Your task to perform on an android device: Open Google Chrome and open the bookmarks view Image 0: 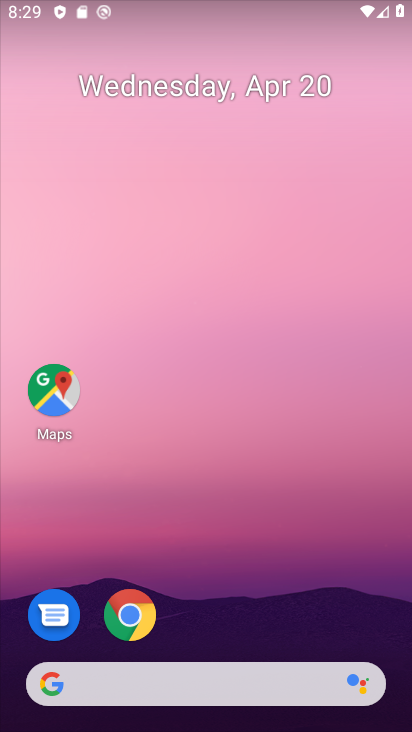
Step 0: click (119, 613)
Your task to perform on an android device: Open Google Chrome and open the bookmarks view Image 1: 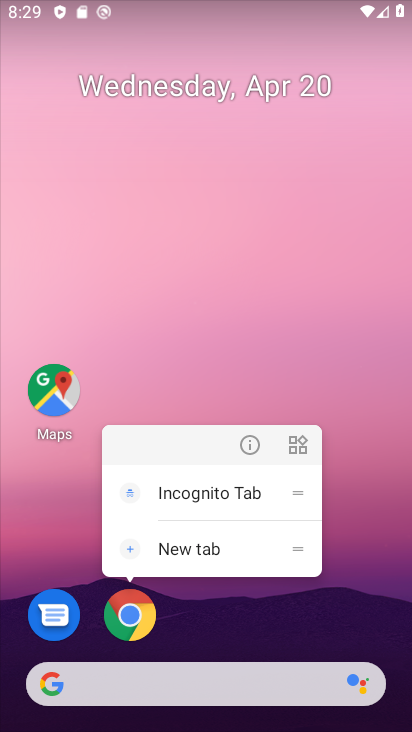
Step 1: click (249, 449)
Your task to perform on an android device: Open Google Chrome and open the bookmarks view Image 2: 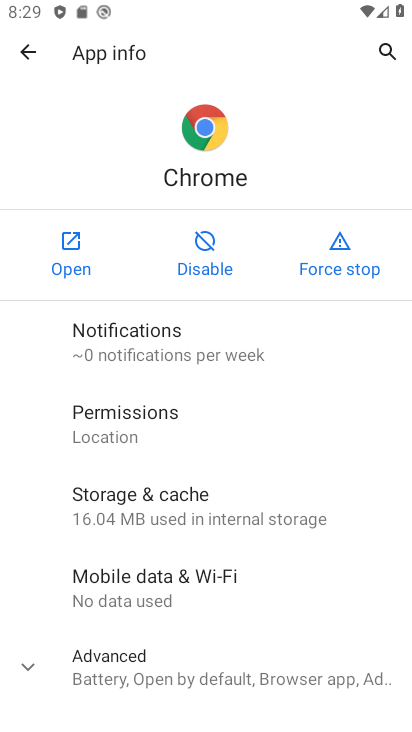
Step 2: click (72, 240)
Your task to perform on an android device: Open Google Chrome and open the bookmarks view Image 3: 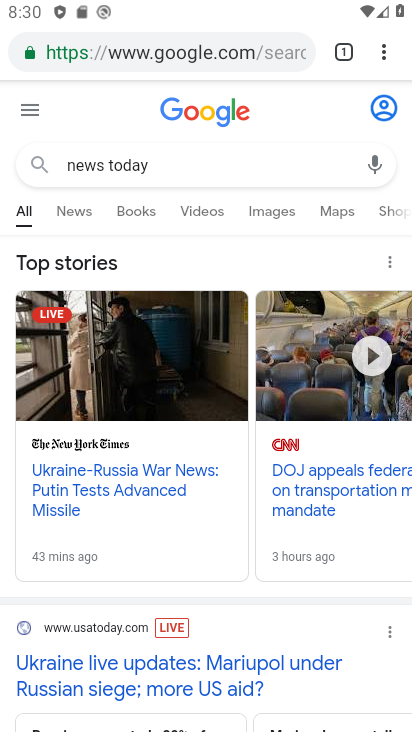
Step 3: click (348, 56)
Your task to perform on an android device: Open Google Chrome and open the bookmarks view Image 4: 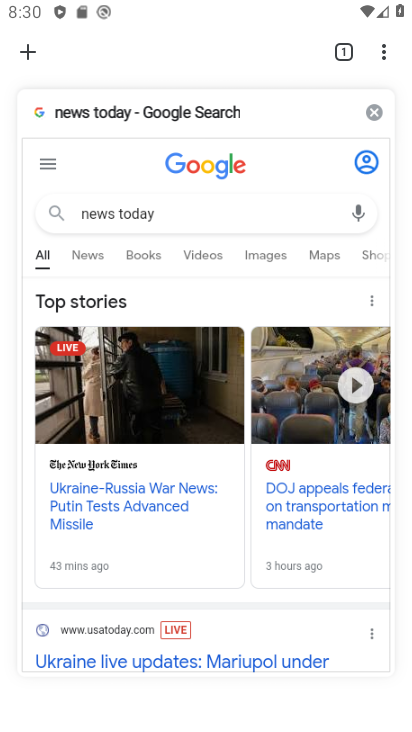
Step 4: click (24, 49)
Your task to perform on an android device: Open Google Chrome and open the bookmarks view Image 5: 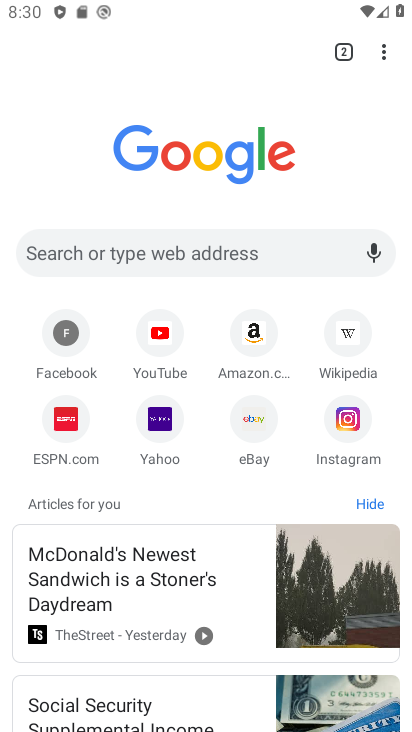
Step 5: click (387, 56)
Your task to perform on an android device: Open Google Chrome and open the bookmarks view Image 6: 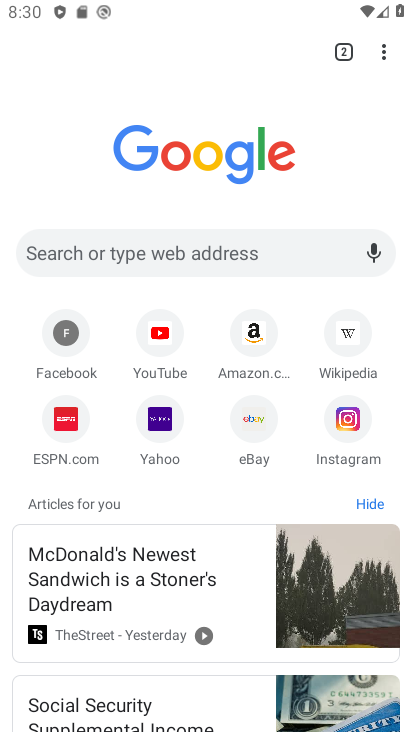
Step 6: click (386, 46)
Your task to perform on an android device: Open Google Chrome and open the bookmarks view Image 7: 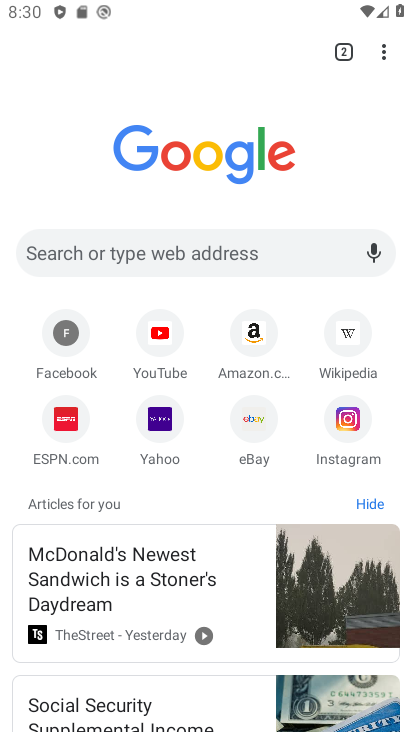
Step 7: click (386, 46)
Your task to perform on an android device: Open Google Chrome and open the bookmarks view Image 8: 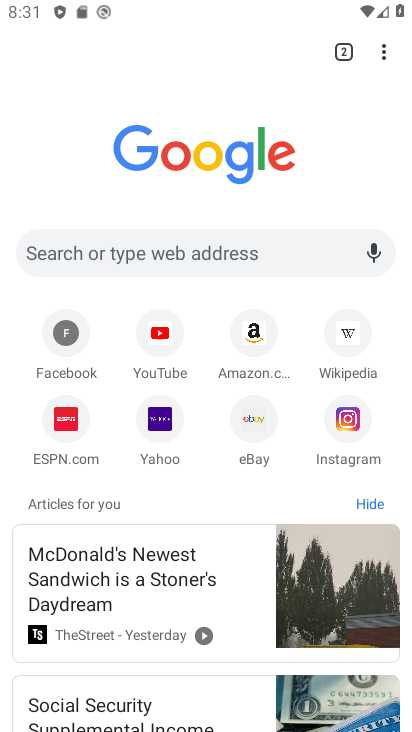
Step 8: click (383, 47)
Your task to perform on an android device: Open Google Chrome and open the bookmarks view Image 9: 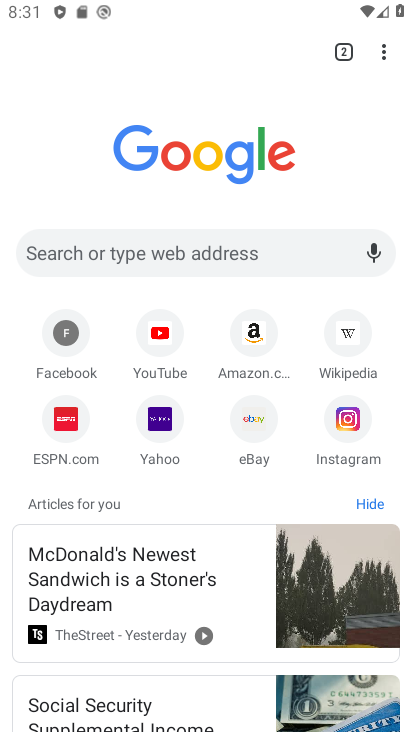
Step 9: click (383, 47)
Your task to perform on an android device: Open Google Chrome and open the bookmarks view Image 10: 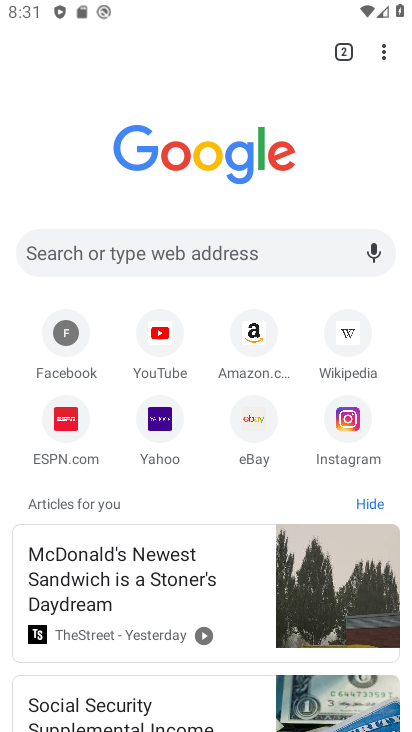
Step 10: click (382, 46)
Your task to perform on an android device: Open Google Chrome and open the bookmarks view Image 11: 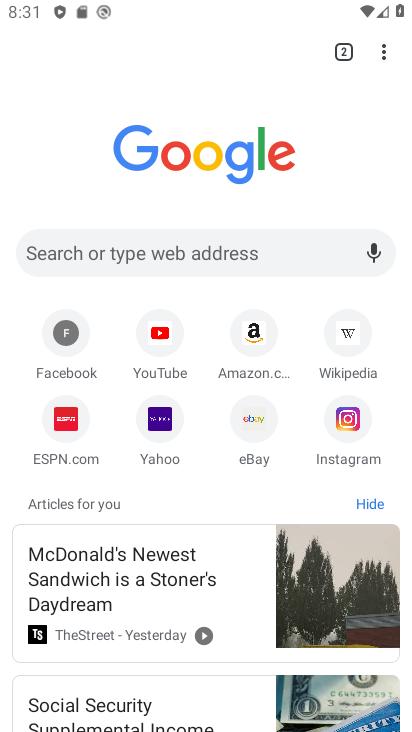
Step 11: click (387, 48)
Your task to perform on an android device: Open Google Chrome and open the bookmarks view Image 12: 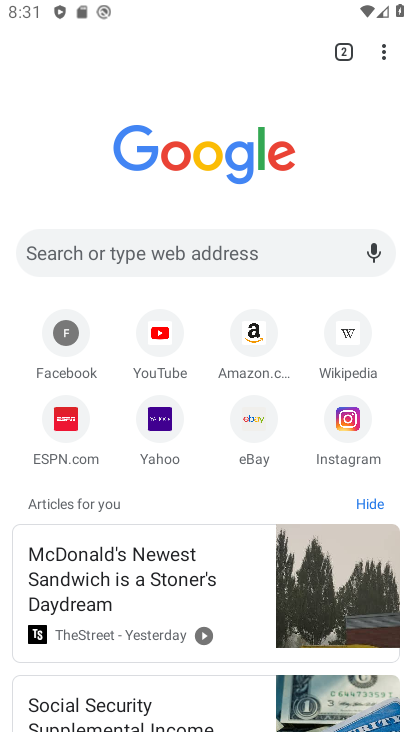
Step 12: click (383, 51)
Your task to perform on an android device: Open Google Chrome and open the bookmarks view Image 13: 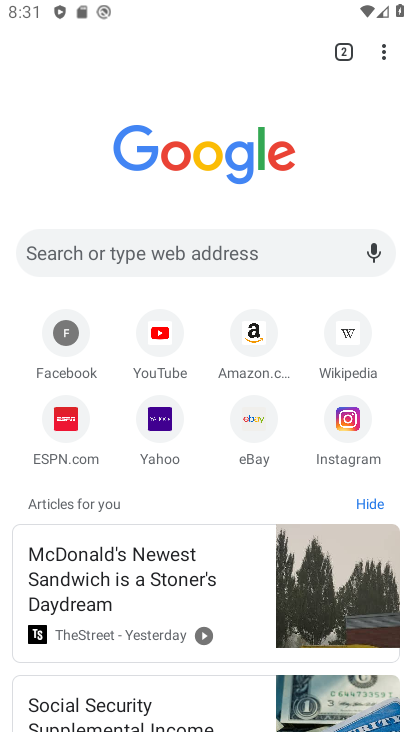
Step 13: drag from (408, 101) to (392, 48)
Your task to perform on an android device: Open Google Chrome and open the bookmarks view Image 14: 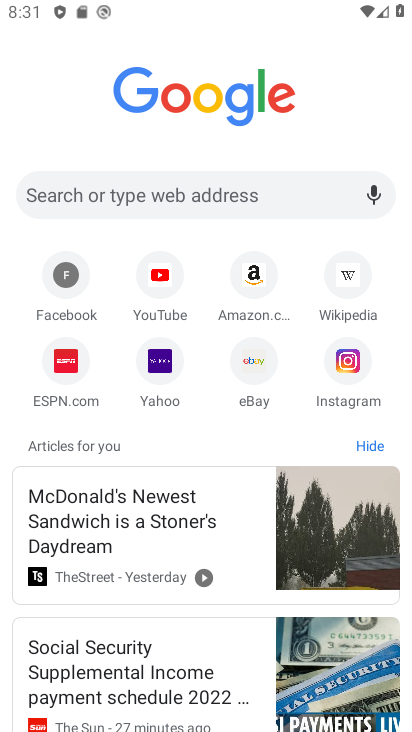
Step 14: drag from (275, 106) to (409, 41)
Your task to perform on an android device: Open Google Chrome and open the bookmarks view Image 15: 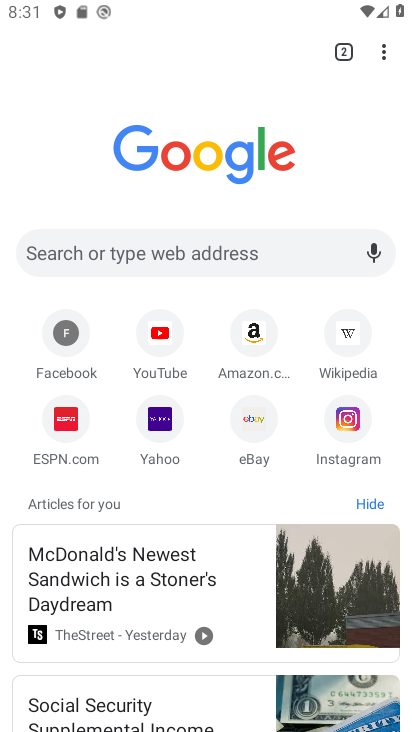
Step 15: click (382, 49)
Your task to perform on an android device: Open Google Chrome and open the bookmarks view Image 16: 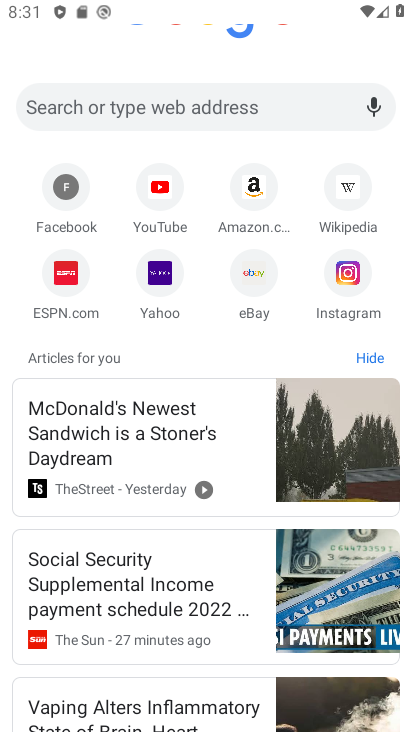
Step 16: drag from (410, 85) to (407, 385)
Your task to perform on an android device: Open Google Chrome and open the bookmarks view Image 17: 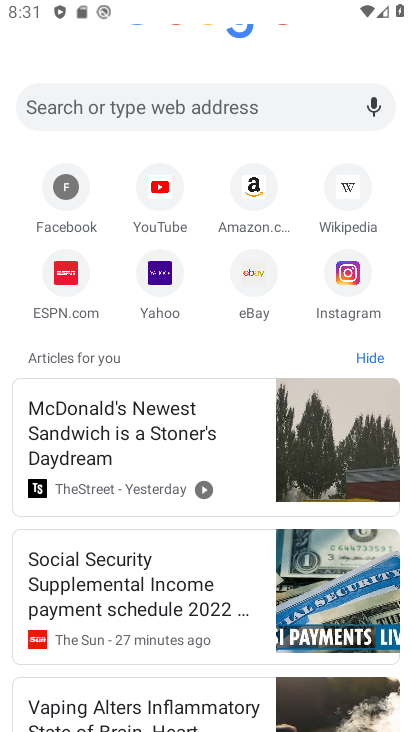
Step 17: drag from (11, 195) to (0, 453)
Your task to perform on an android device: Open Google Chrome and open the bookmarks view Image 18: 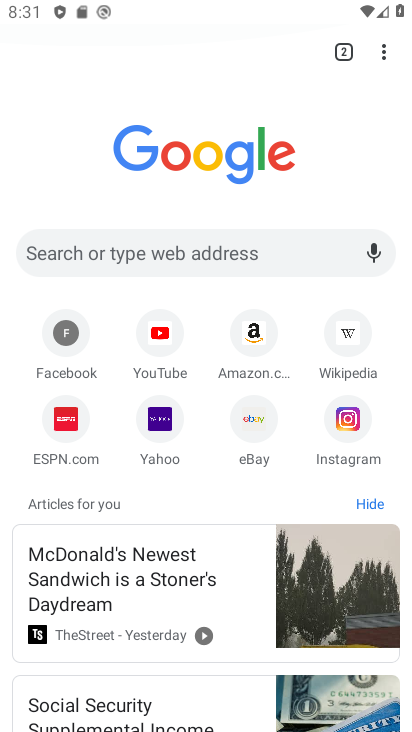
Step 18: drag from (352, 45) to (352, 370)
Your task to perform on an android device: Open Google Chrome and open the bookmarks view Image 19: 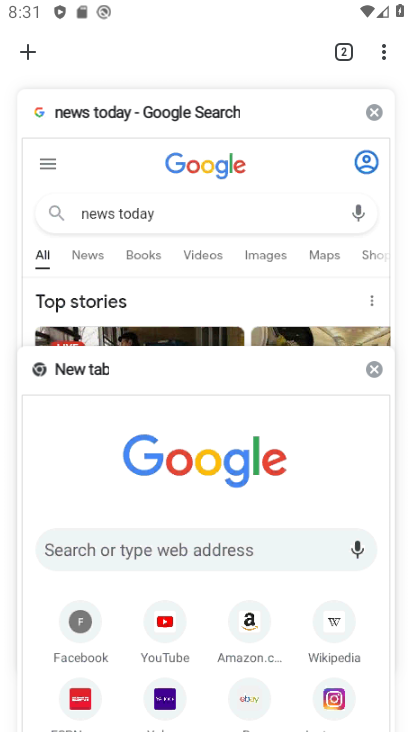
Step 19: click (387, 46)
Your task to perform on an android device: Open Google Chrome and open the bookmarks view Image 20: 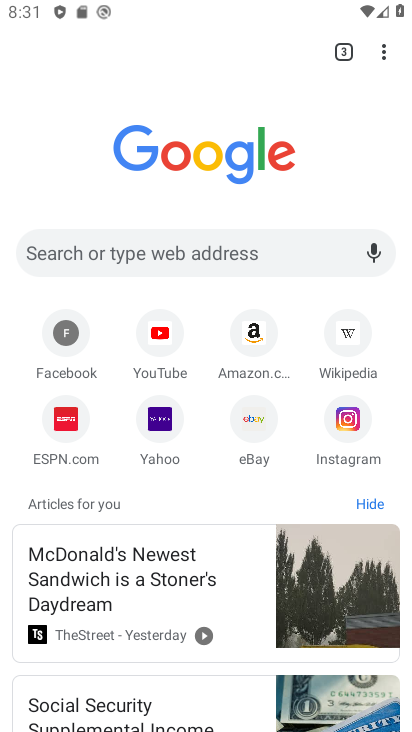
Step 20: click (383, 55)
Your task to perform on an android device: Open Google Chrome and open the bookmarks view Image 21: 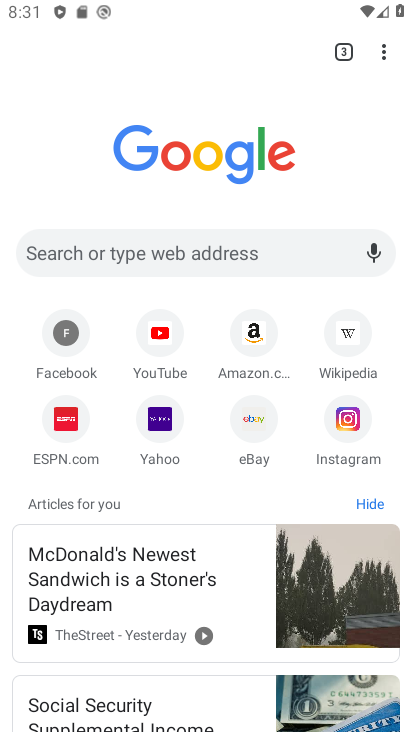
Step 21: click (341, 52)
Your task to perform on an android device: Open Google Chrome and open the bookmarks view Image 22: 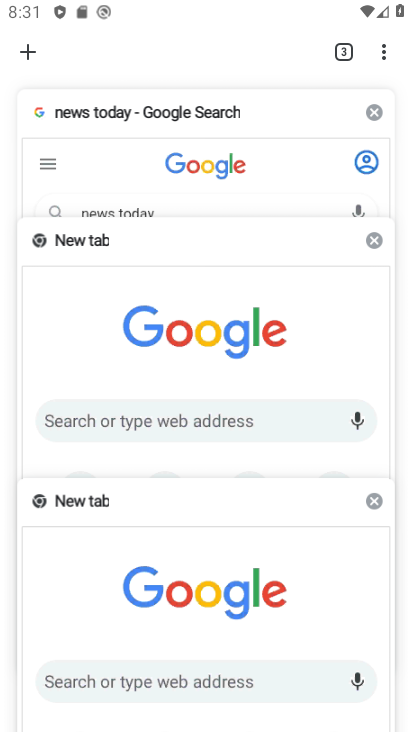
Step 22: click (372, 241)
Your task to perform on an android device: Open Google Chrome and open the bookmarks view Image 23: 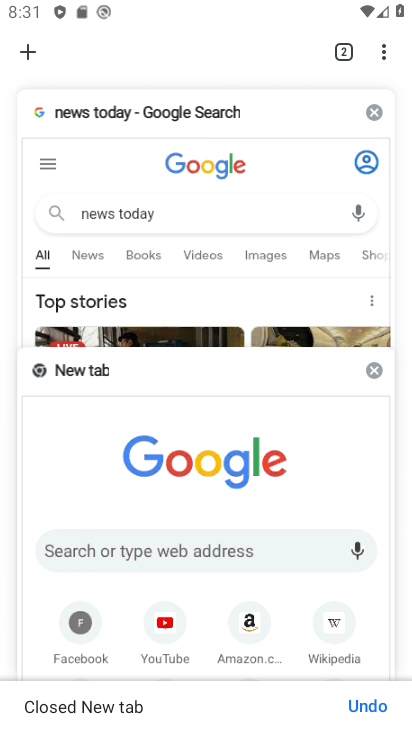
Step 23: click (386, 55)
Your task to perform on an android device: Open Google Chrome and open the bookmarks view Image 24: 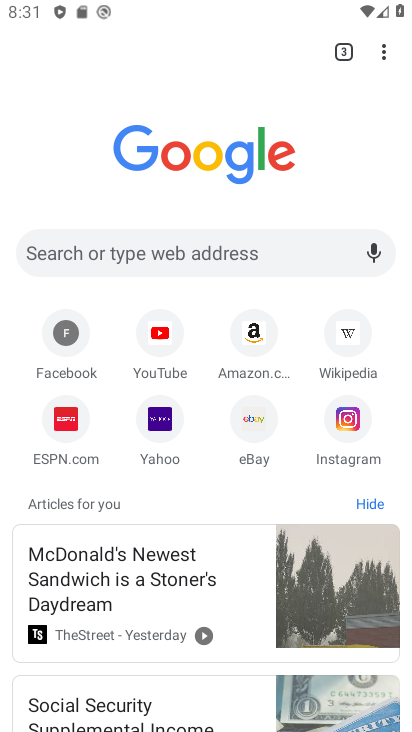
Step 24: click (386, 55)
Your task to perform on an android device: Open Google Chrome and open the bookmarks view Image 25: 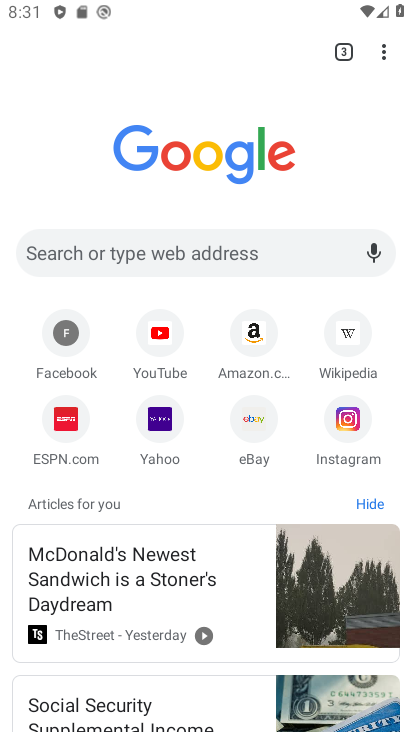
Step 25: click (386, 55)
Your task to perform on an android device: Open Google Chrome and open the bookmarks view Image 26: 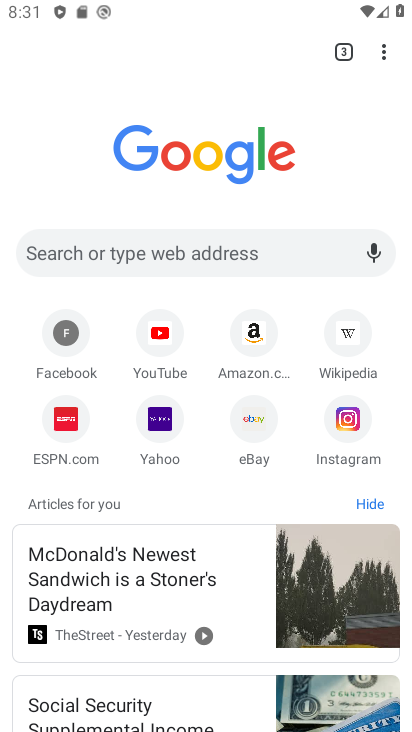
Step 26: click (386, 55)
Your task to perform on an android device: Open Google Chrome and open the bookmarks view Image 27: 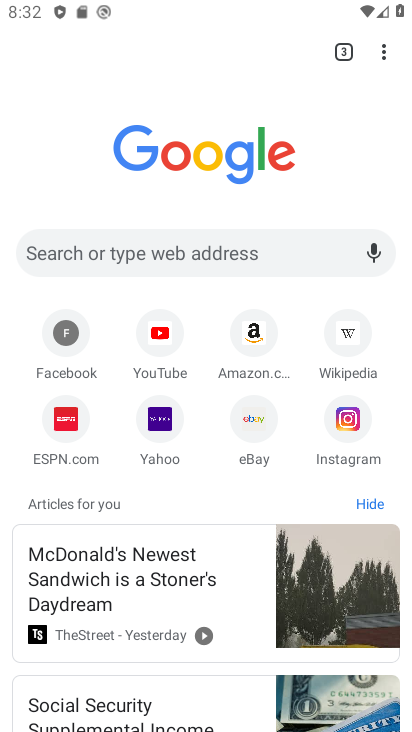
Step 27: click (386, 55)
Your task to perform on an android device: Open Google Chrome and open the bookmarks view Image 28: 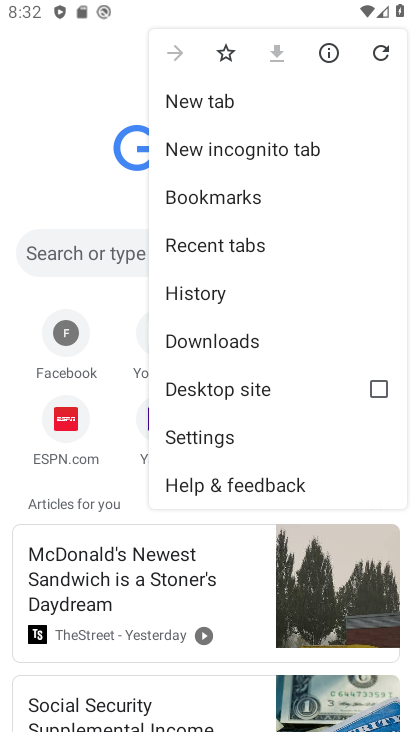
Step 28: click (192, 195)
Your task to perform on an android device: Open Google Chrome and open the bookmarks view Image 29: 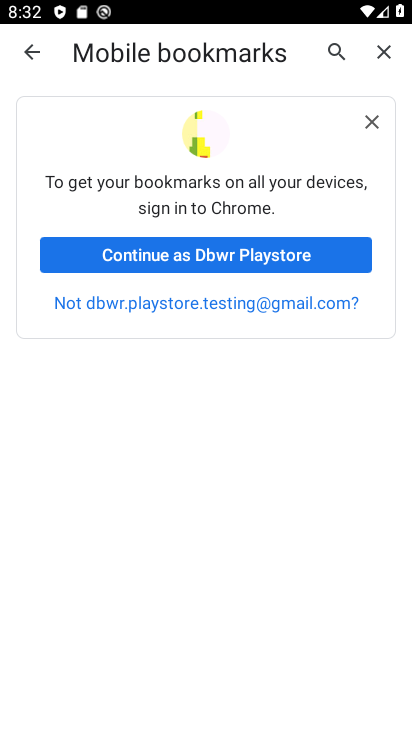
Step 29: click (373, 120)
Your task to perform on an android device: Open Google Chrome and open the bookmarks view Image 30: 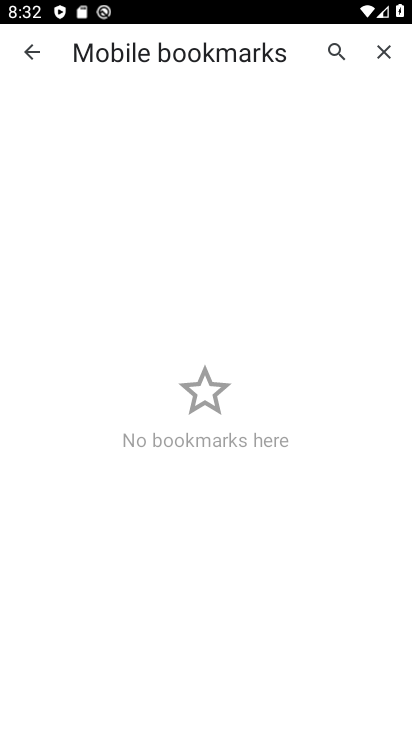
Step 30: task complete